Your task to perform on an android device: toggle wifi Image 0: 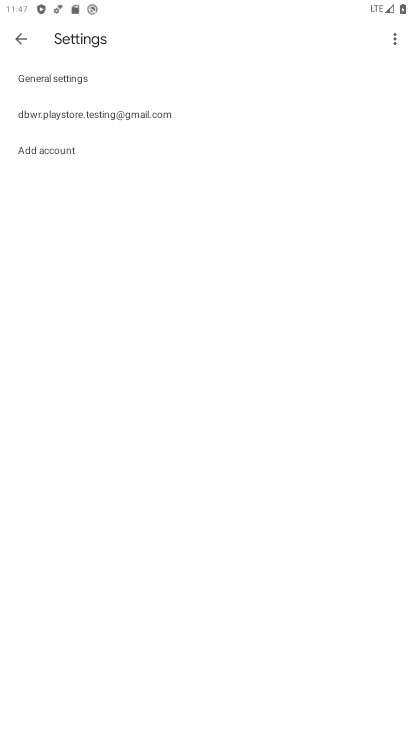
Step 0: press home button
Your task to perform on an android device: toggle wifi Image 1: 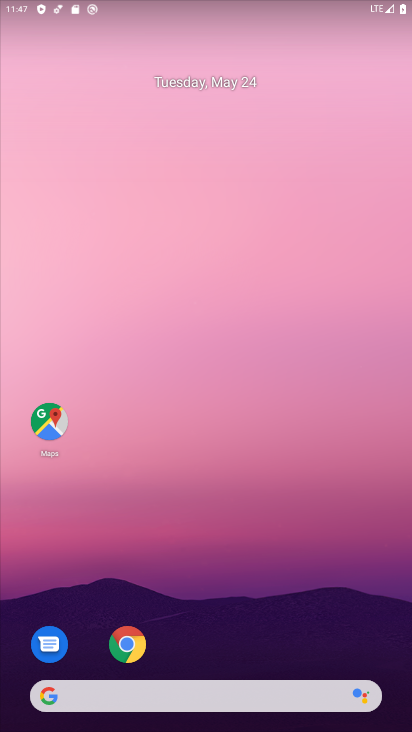
Step 1: drag from (229, 517) to (149, 45)
Your task to perform on an android device: toggle wifi Image 2: 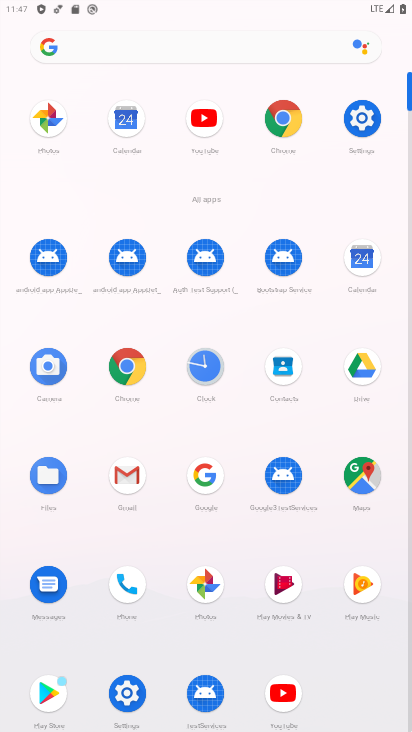
Step 2: click (115, 697)
Your task to perform on an android device: toggle wifi Image 3: 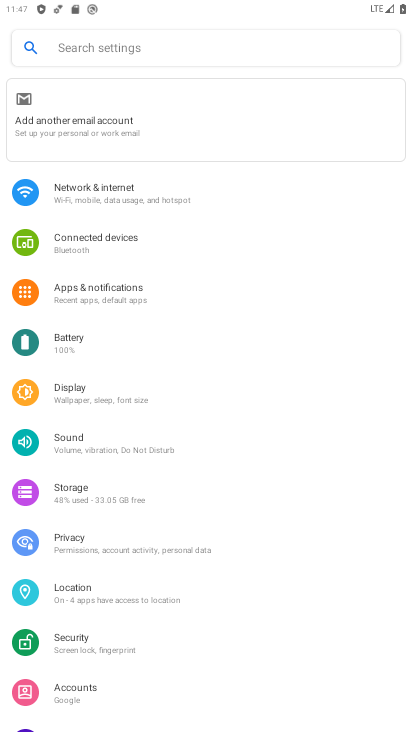
Step 3: click (108, 186)
Your task to perform on an android device: toggle wifi Image 4: 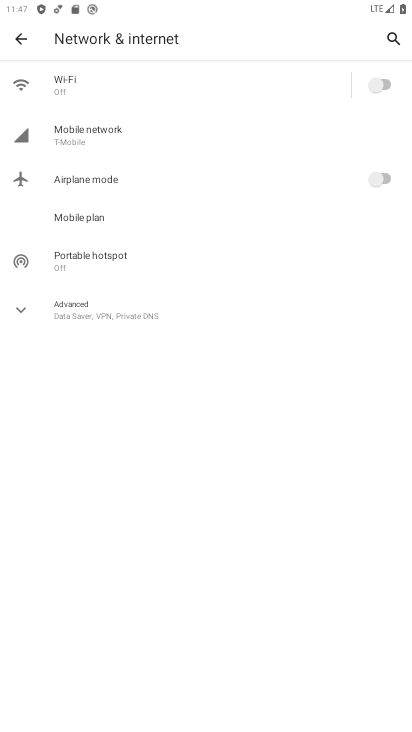
Step 4: click (379, 84)
Your task to perform on an android device: toggle wifi Image 5: 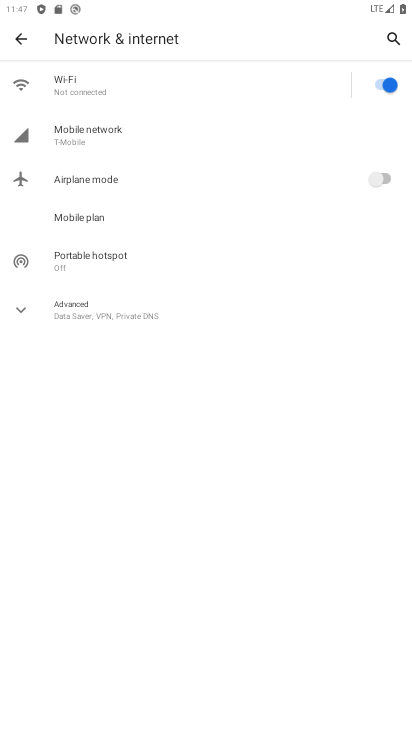
Step 5: task complete